Your task to perform on an android device: Open the calendar and show me this week's events Image 0: 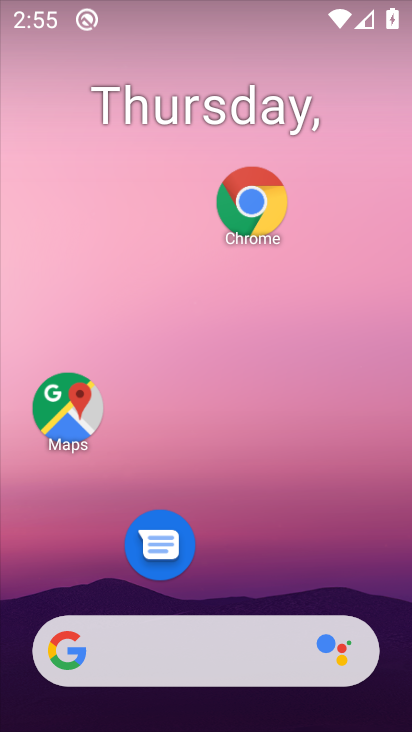
Step 0: drag from (244, 619) to (300, 145)
Your task to perform on an android device: Open the calendar and show me this week's events Image 1: 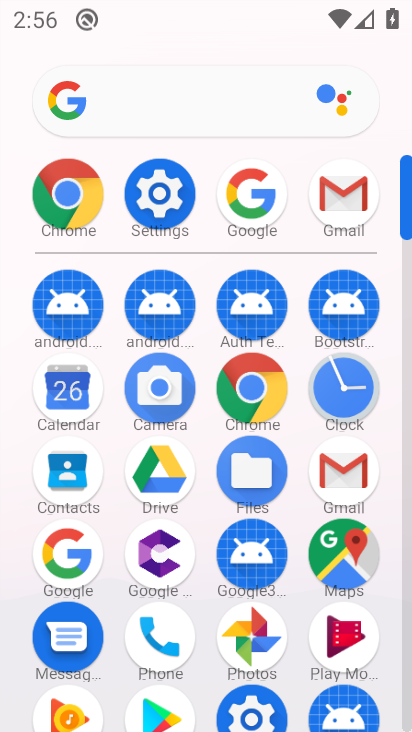
Step 1: click (83, 386)
Your task to perform on an android device: Open the calendar and show me this week's events Image 2: 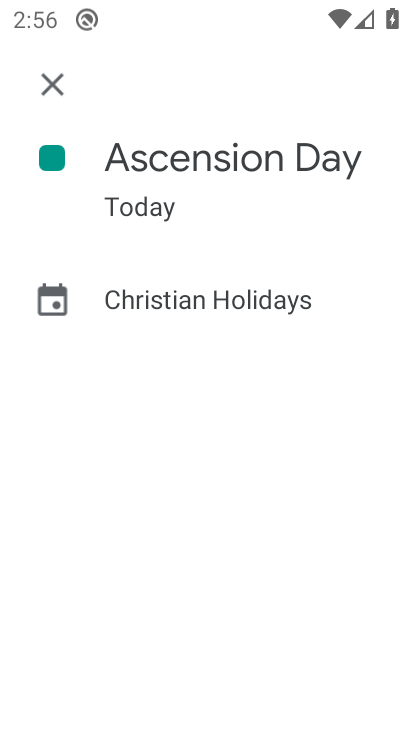
Step 2: click (55, 85)
Your task to perform on an android device: Open the calendar and show me this week's events Image 3: 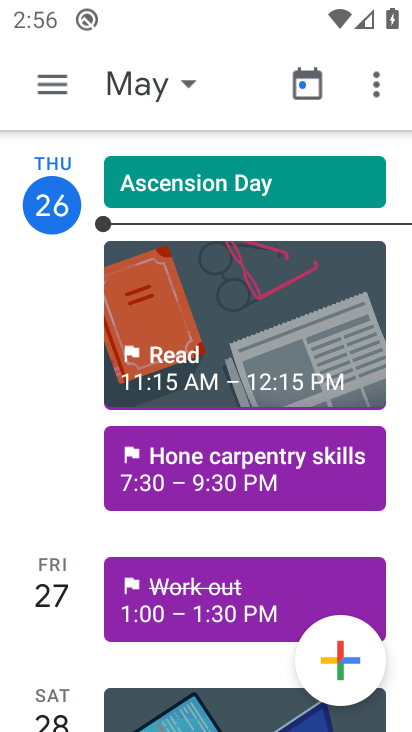
Step 3: click (170, 80)
Your task to perform on an android device: Open the calendar and show me this week's events Image 4: 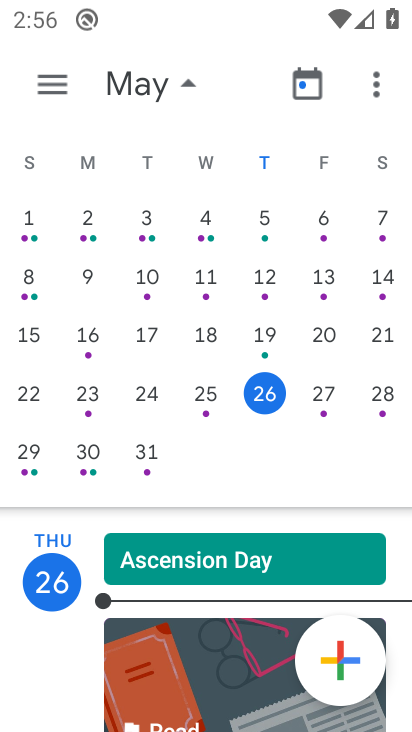
Step 4: click (31, 452)
Your task to perform on an android device: Open the calendar and show me this week's events Image 5: 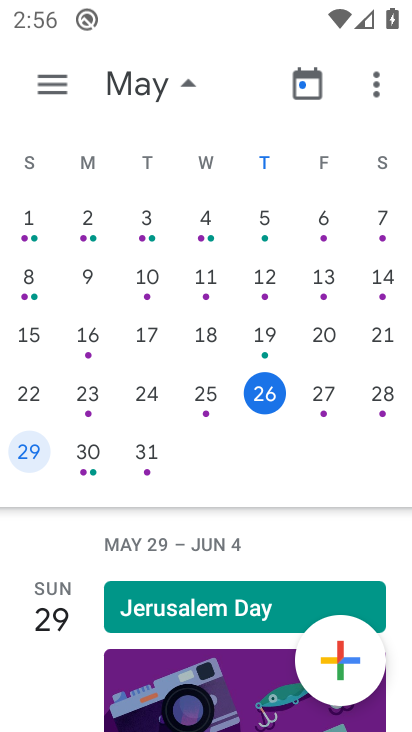
Step 5: task complete